Your task to perform on an android device: Go to Amazon Image 0: 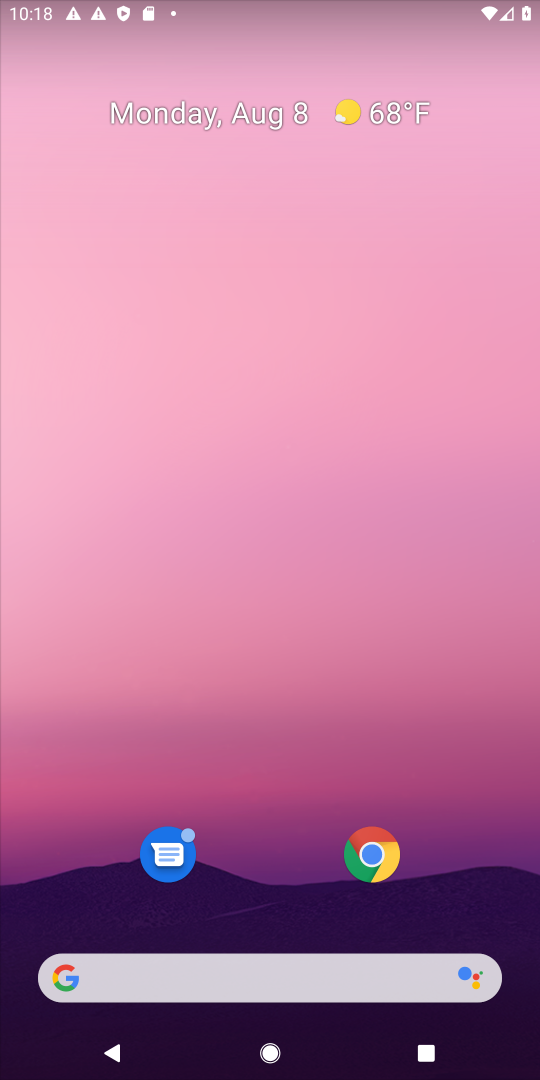
Step 0: click (371, 855)
Your task to perform on an android device: Go to Amazon Image 1: 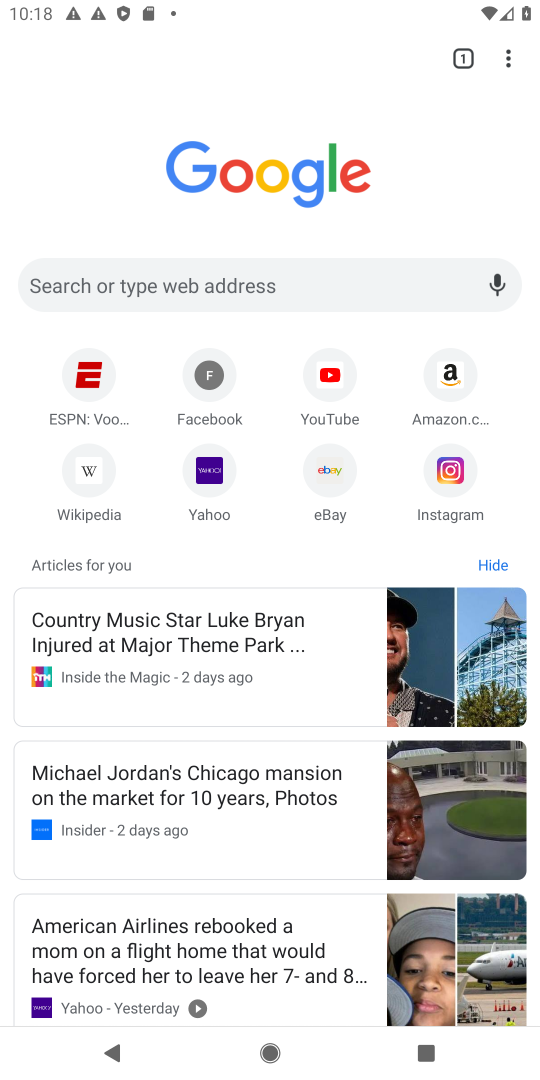
Step 1: click (453, 385)
Your task to perform on an android device: Go to Amazon Image 2: 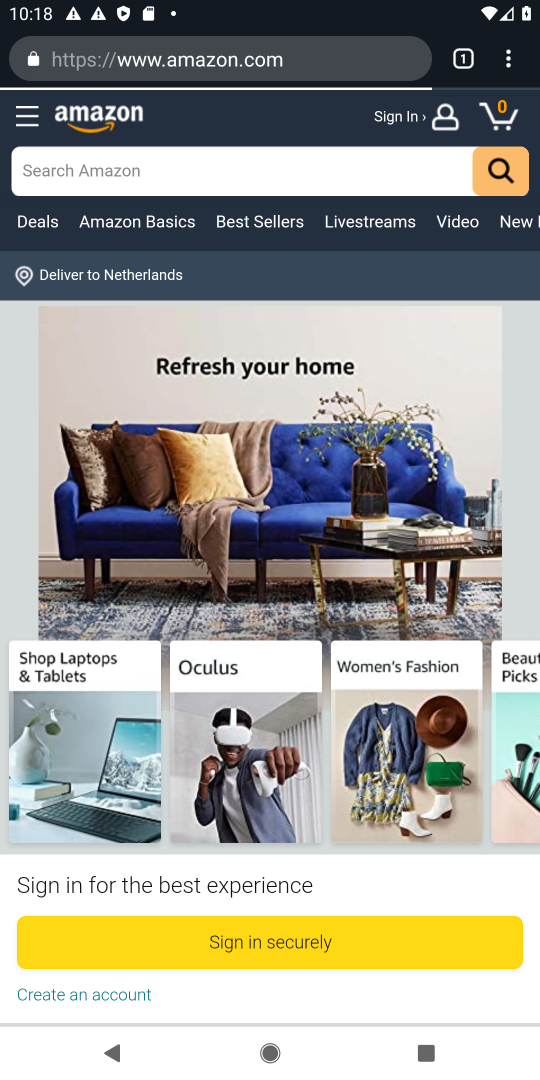
Step 2: task complete